Your task to perform on an android device: Go to Amazon Image 0: 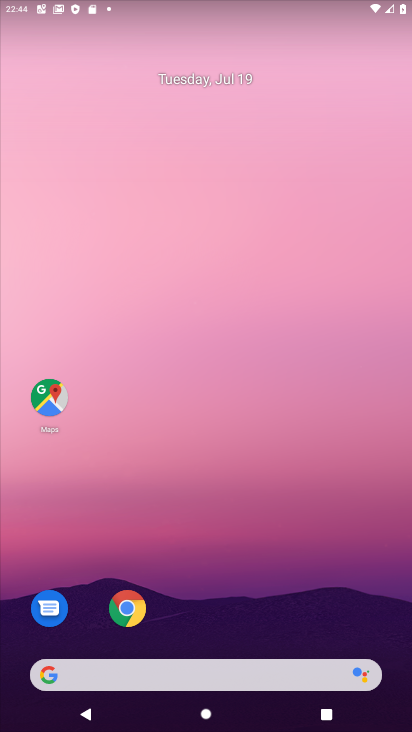
Step 0: drag from (278, 437) to (282, 56)
Your task to perform on an android device: Go to Amazon Image 1: 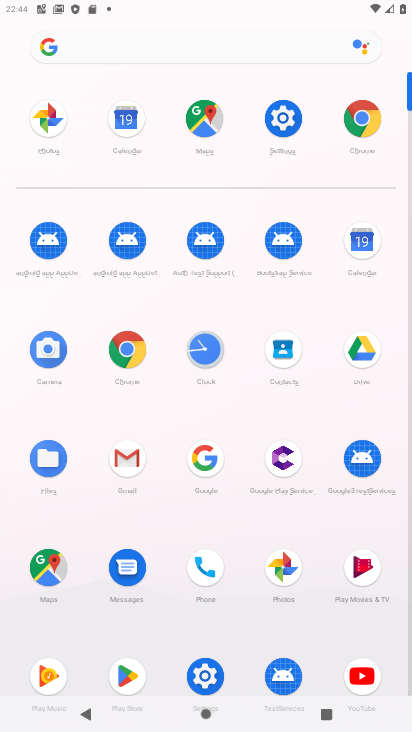
Step 1: click (360, 114)
Your task to perform on an android device: Go to Amazon Image 2: 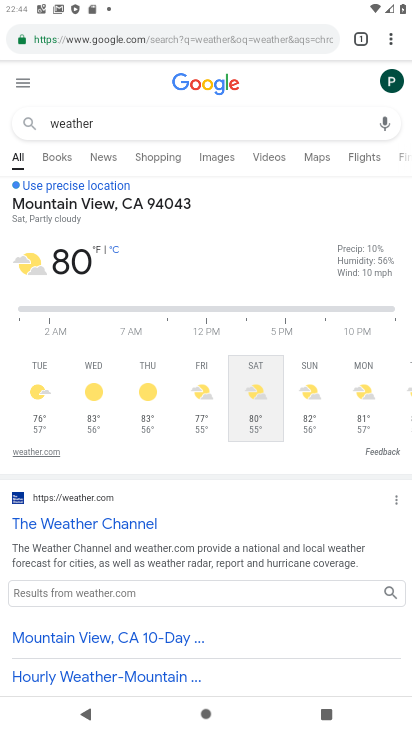
Step 2: click (248, 41)
Your task to perform on an android device: Go to Amazon Image 3: 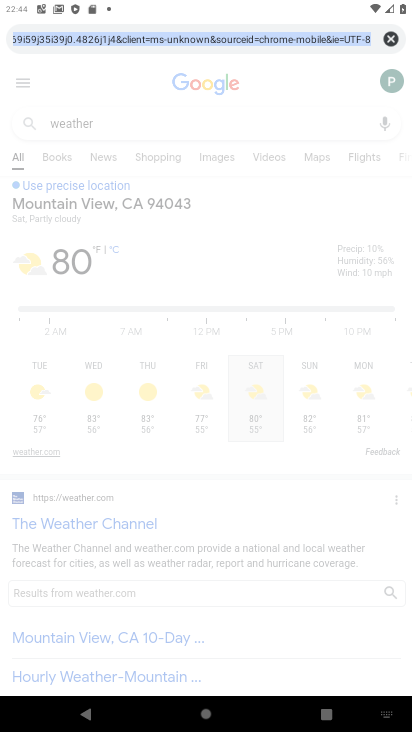
Step 3: type "amazon"
Your task to perform on an android device: Go to Amazon Image 4: 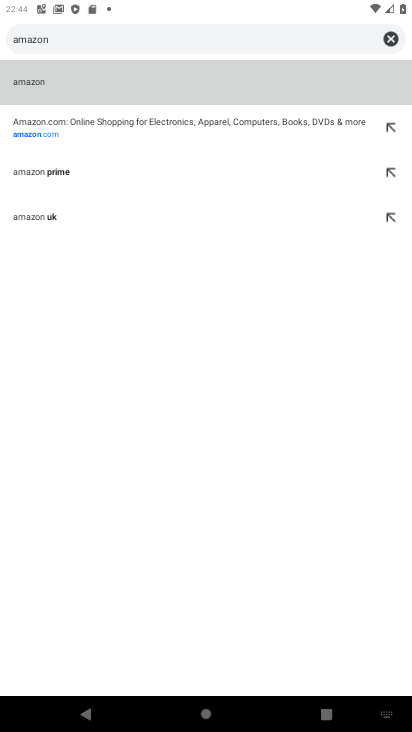
Step 4: click (25, 137)
Your task to perform on an android device: Go to Amazon Image 5: 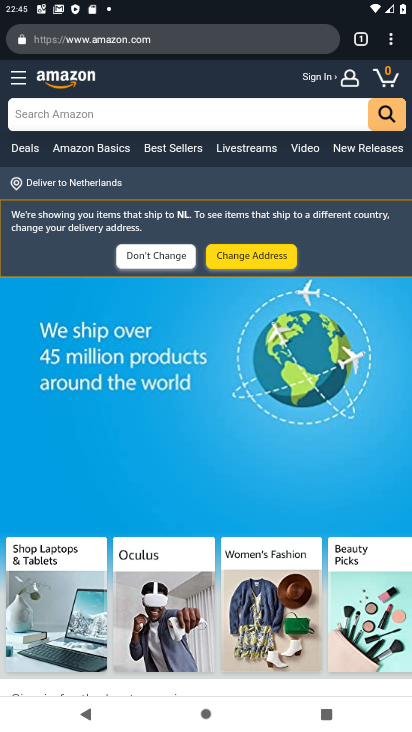
Step 5: task complete